Your task to perform on an android device: Go to notification settings Image 0: 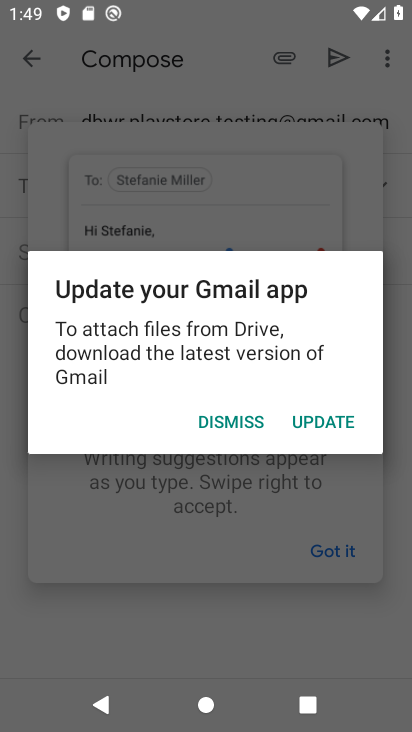
Step 0: press home button
Your task to perform on an android device: Go to notification settings Image 1: 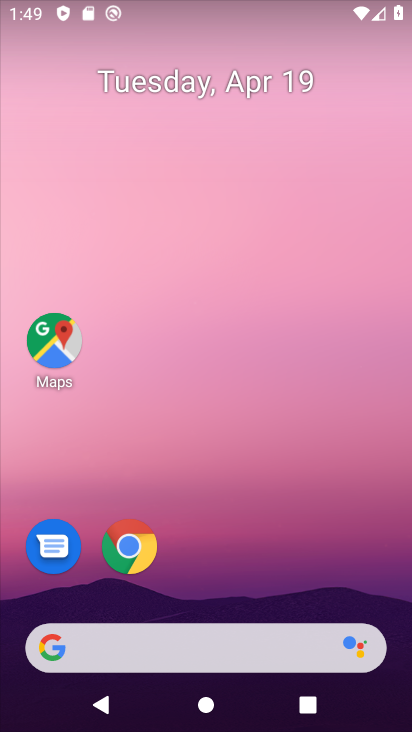
Step 1: drag from (193, 650) to (155, 205)
Your task to perform on an android device: Go to notification settings Image 2: 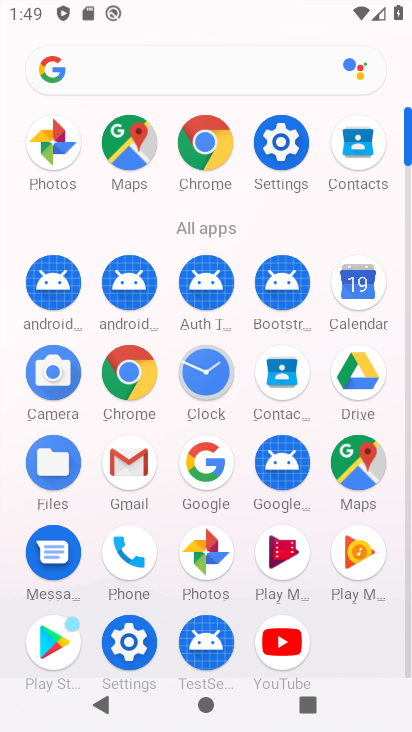
Step 2: click (122, 649)
Your task to perform on an android device: Go to notification settings Image 3: 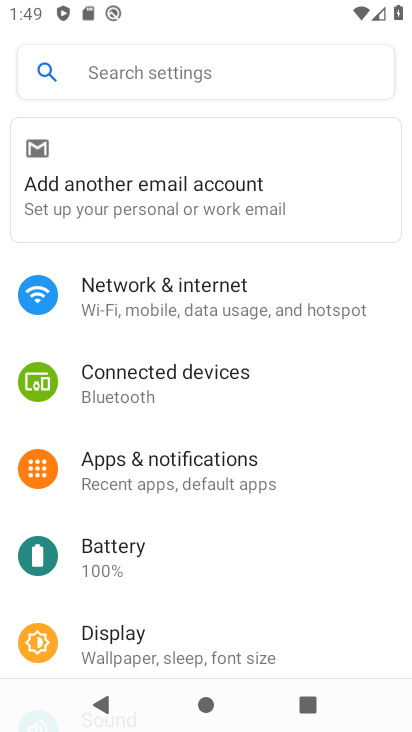
Step 3: click (167, 458)
Your task to perform on an android device: Go to notification settings Image 4: 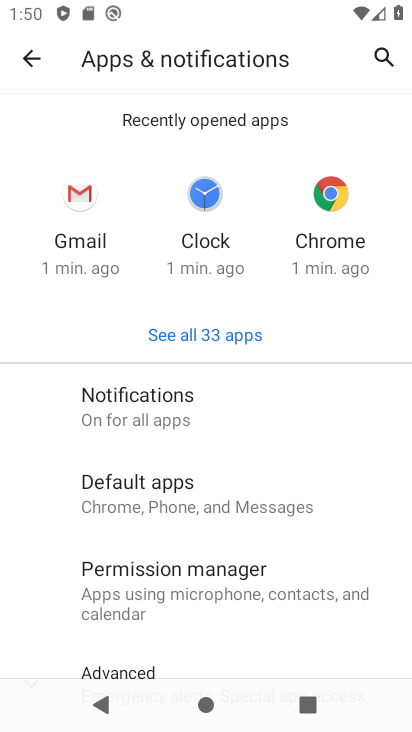
Step 4: task complete